Your task to perform on an android device: turn on sleep mode Image 0: 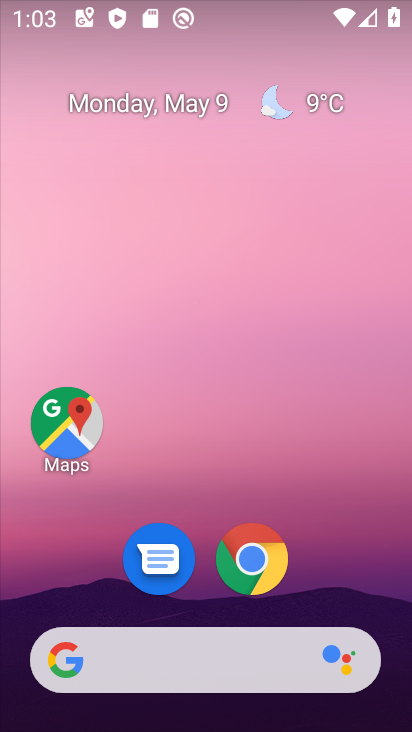
Step 0: drag from (352, 552) to (349, 279)
Your task to perform on an android device: turn on sleep mode Image 1: 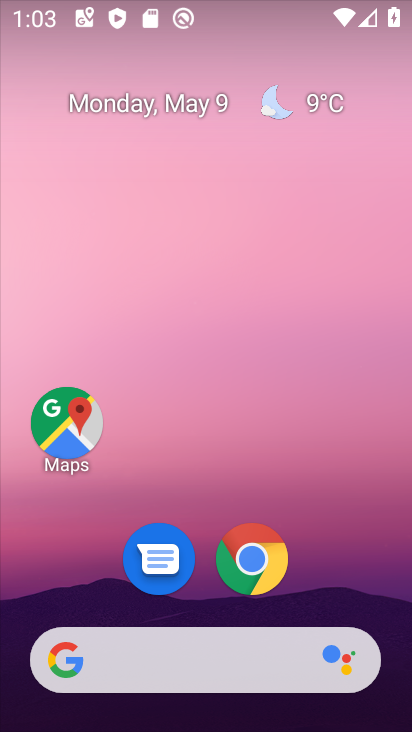
Step 1: drag from (329, 613) to (353, 403)
Your task to perform on an android device: turn on sleep mode Image 2: 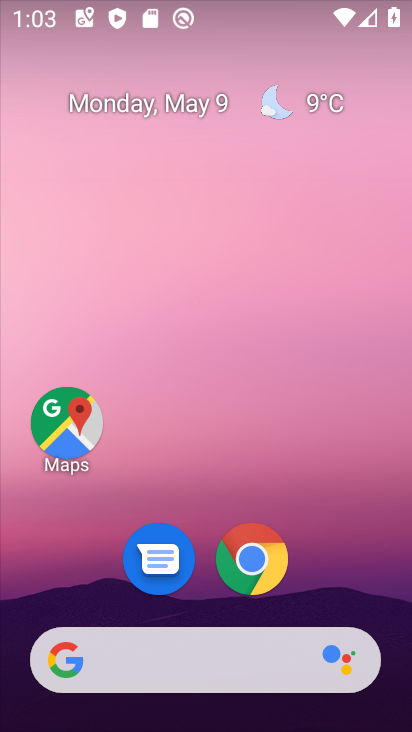
Step 2: drag from (331, 593) to (356, 382)
Your task to perform on an android device: turn on sleep mode Image 3: 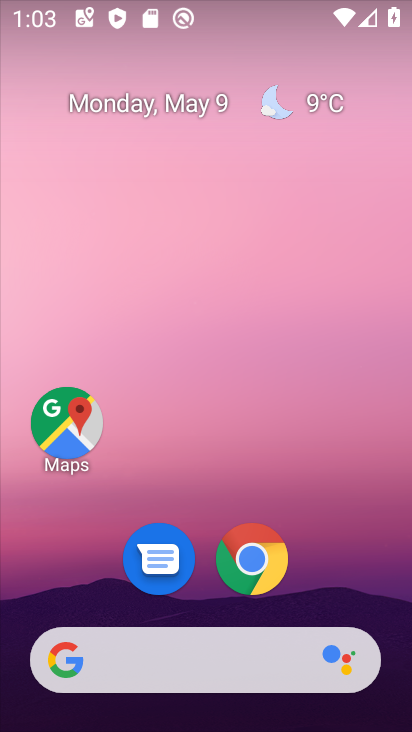
Step 3: drag from (331, 627) to (330, 347)
Your task to perform on an android device: turn on sleep mode Image 4: 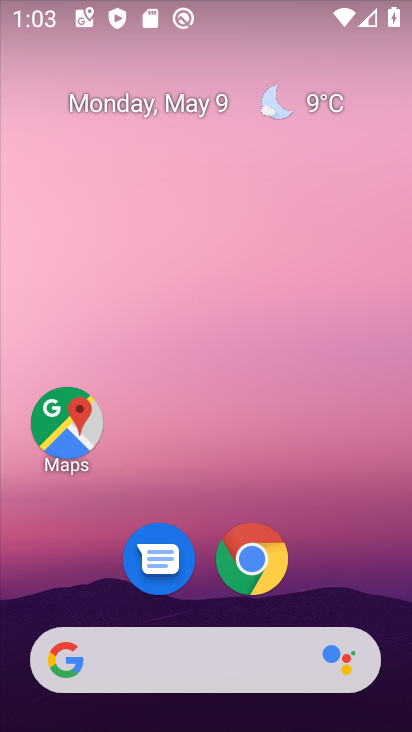
Step 4: drag from (302, 616) to (339, 117)
Your task to perform on an android device: turn on sleep mode Image 5: 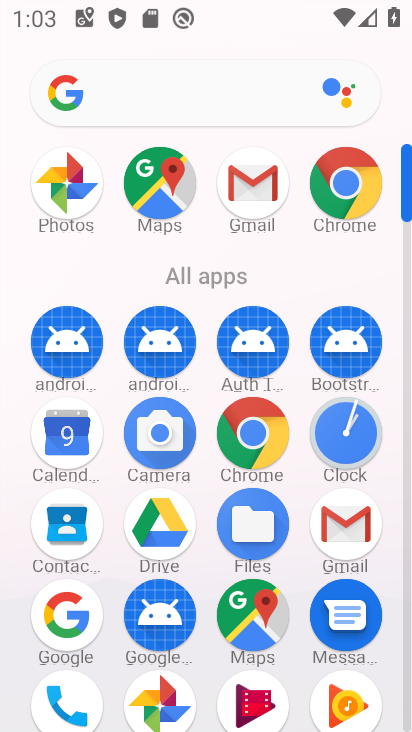
Step 5: drag from (281, 599) to (319, 255)
Your task to perform on an android device: turn on sleep mode Image 6: 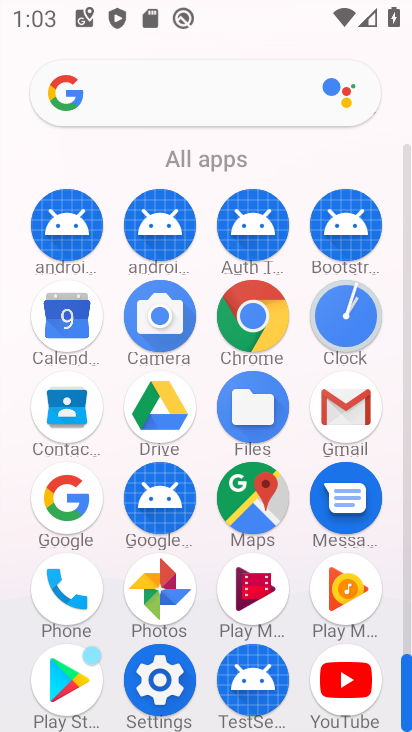
Step 6: click (160, 669)
Your task to perform on an android device: turn on sleep mode Image 7: 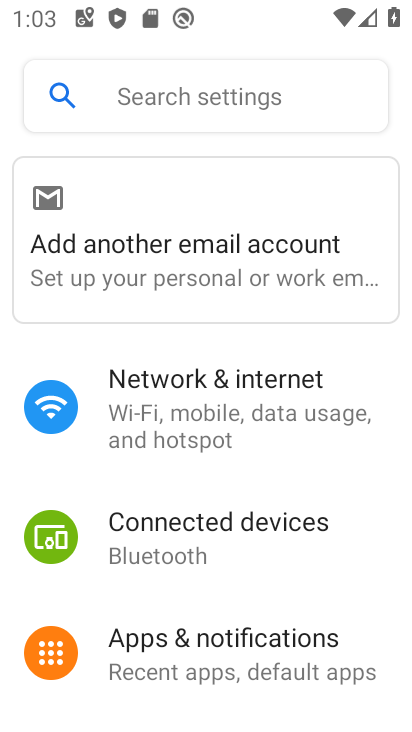
Step 7: task complete